Your task to perform on an android device: Search for pizza restaurants on Maps Image 0: 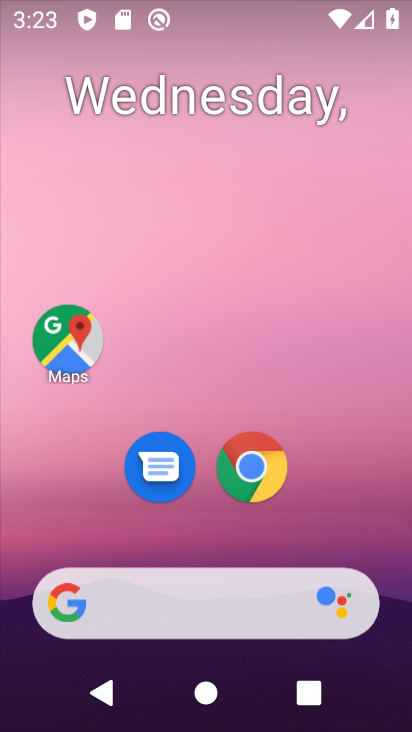
Step 0: click (60, 351)
Your task to perform on an android device: Search for pizza restaurants on Maps Image 1: 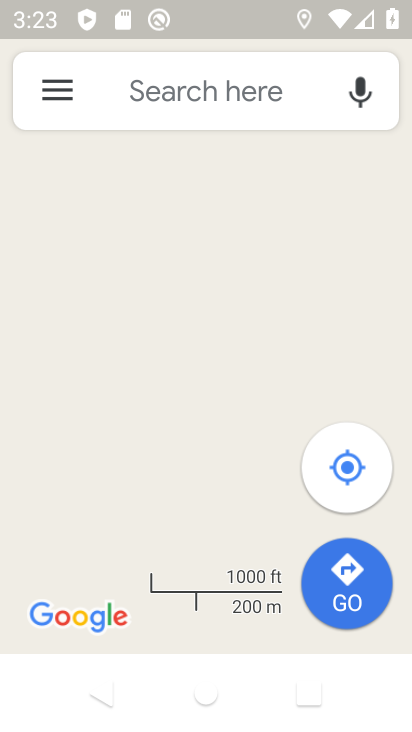
Step 1: click (217, 110)
Your task to perform on an android device: Search for pizza restaurants on Maps Image 2: 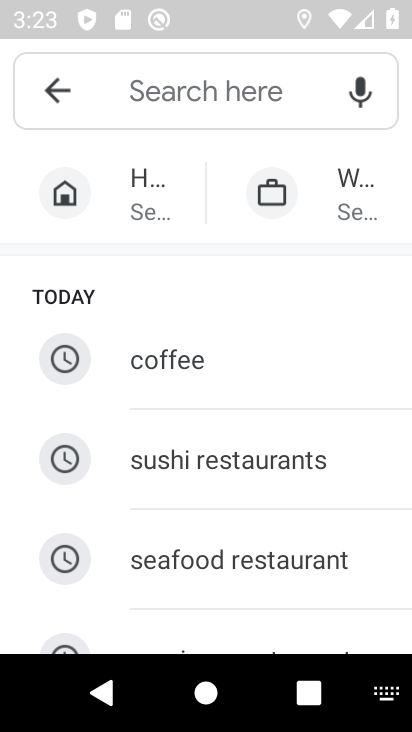
Step 2: type "Pizza restaurants"
Your task to perform on an android device: Search for pizza restaurants on Maps Image 3: 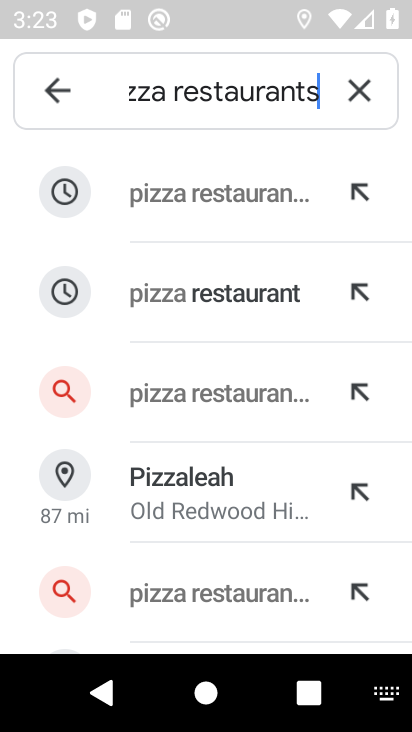
Step 3: click (213, 214)
Your task to perform on an android device: Search for pizza restaurants on Maps Image 4: 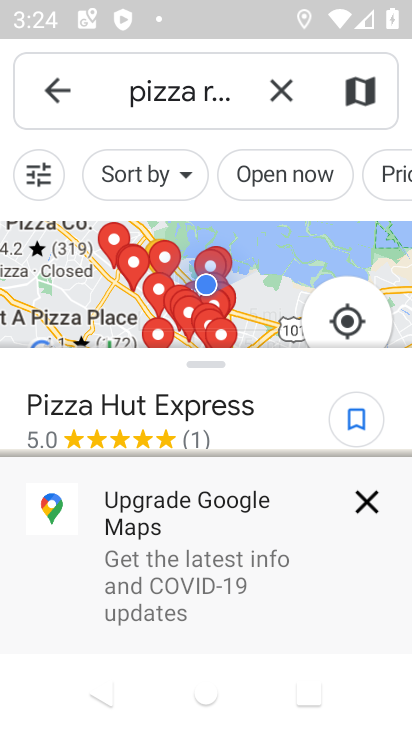
Step 4: click (383, 500)
Your task to perform on an android device: Search for pizza restaurants on Maps Image 5: 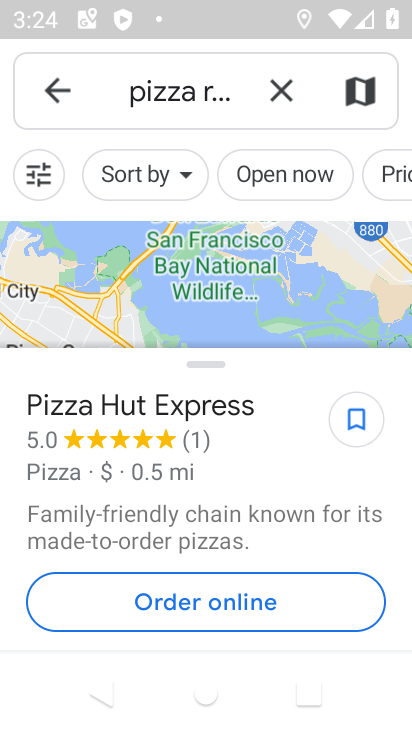
Step 5: task complete